Your task to perform on an android device: Go to Google Image 0: 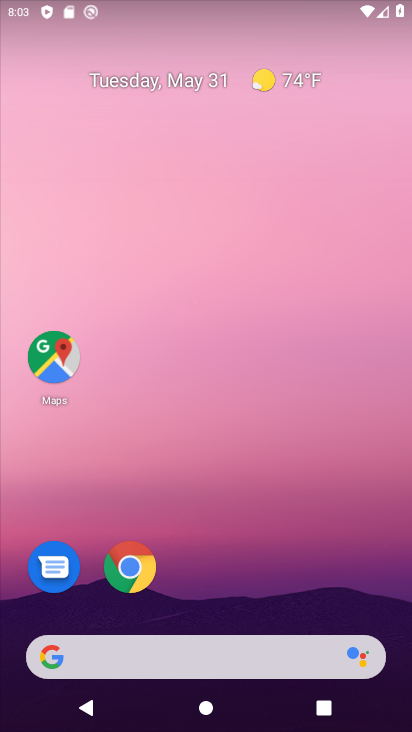
Step 0: drag from (272, 665) to (216, 163)
Your task to perform on an android device: Go to Google Image 1: 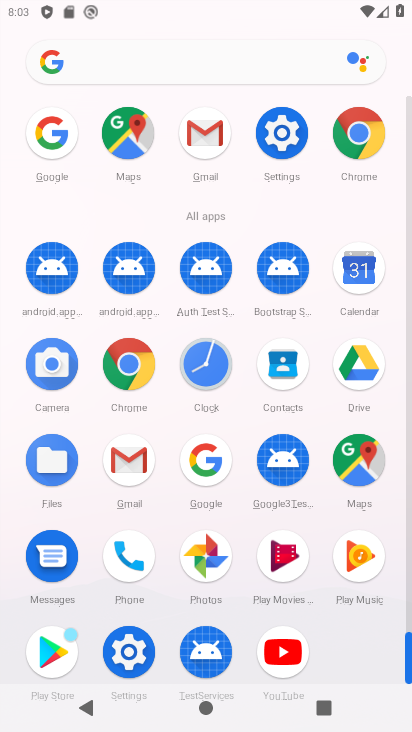
Step 1: click (49, 144)
Your task to perform on an android device: Go to Google Image 2: 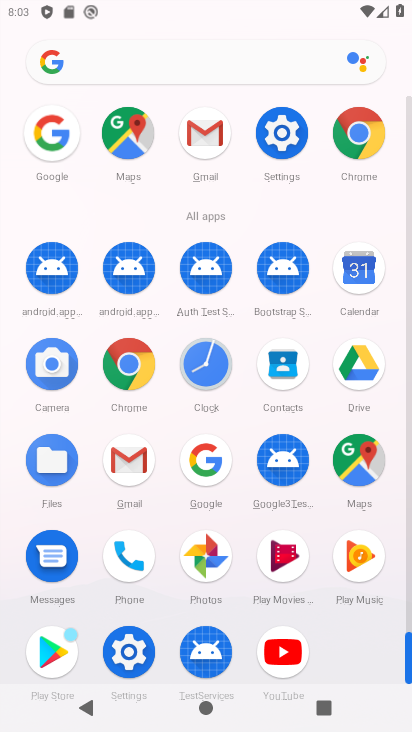
Step 2: click (49, 144)
Your task to perform on an android device: Go to Google Image 3: 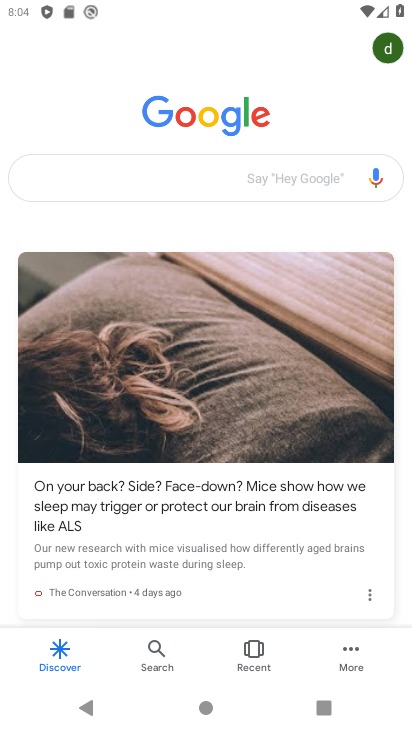
Step 3: task complete